Your task to perform on an android device: Search for the best 4k TVs Image 0: 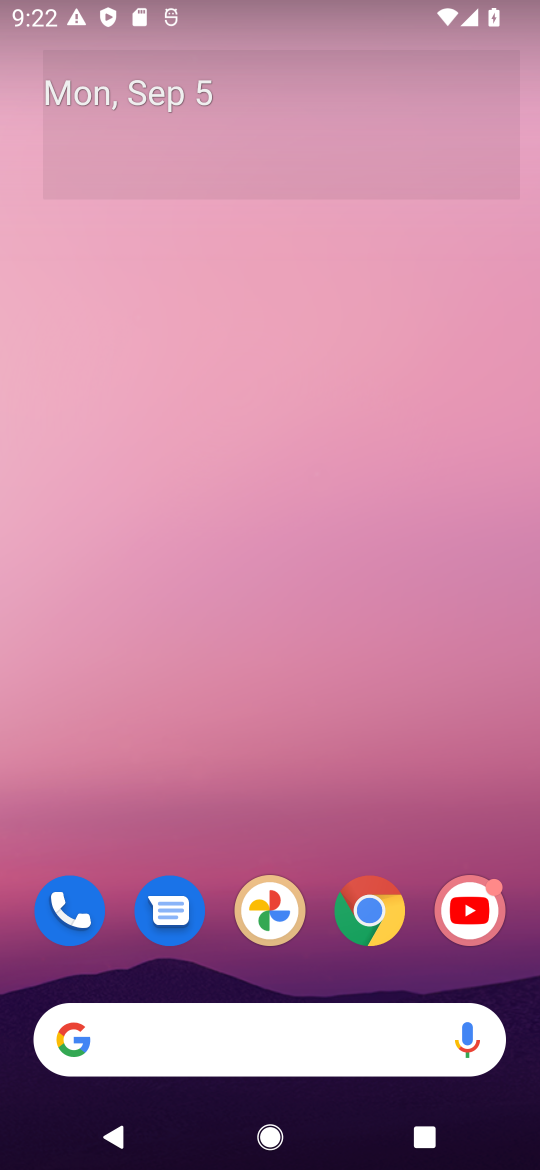
Step 0: click (359, 934)
Your task to perform on an android device: Search for the best 4k TVs Image 1: 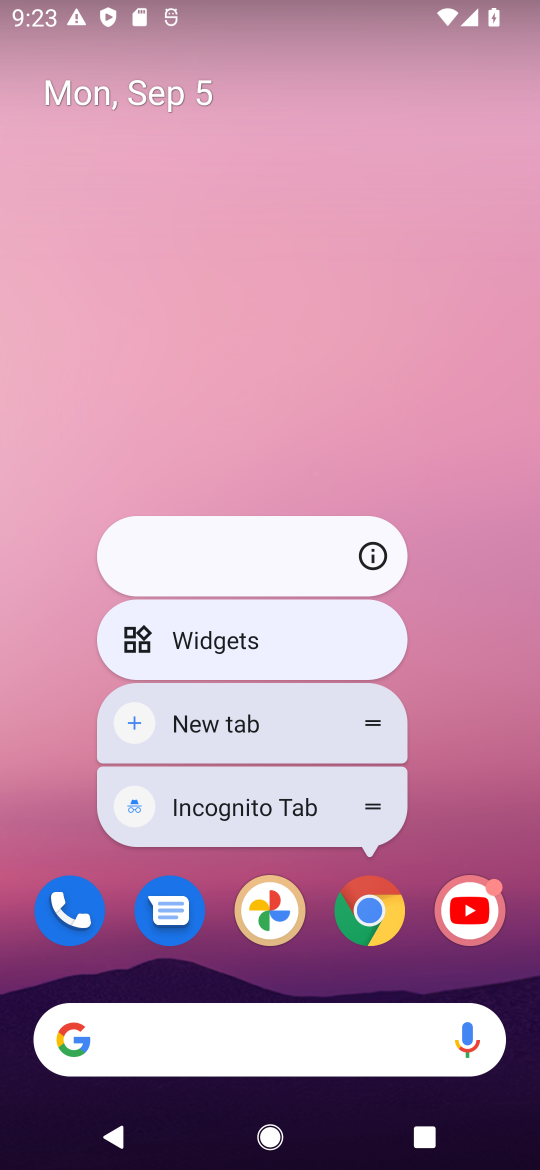
Step 1: click (375, 934)
Your task to perform on an android device: Search for the best 4k TVs Image 2: 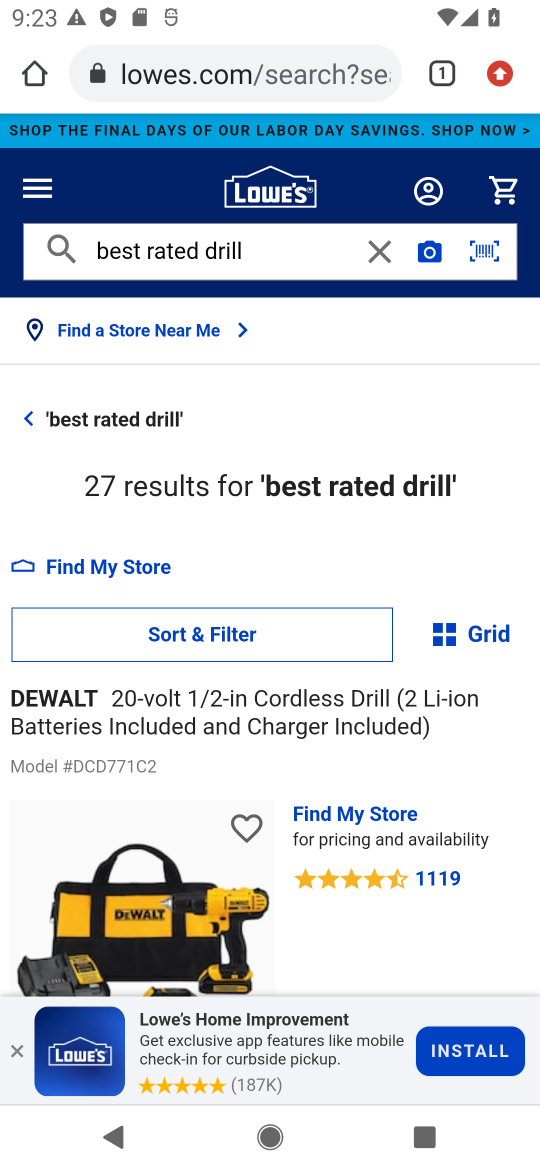
Step 2: click (292, 94)
Your task to perform on an android device: Search for the best 4k TVs Image 3: 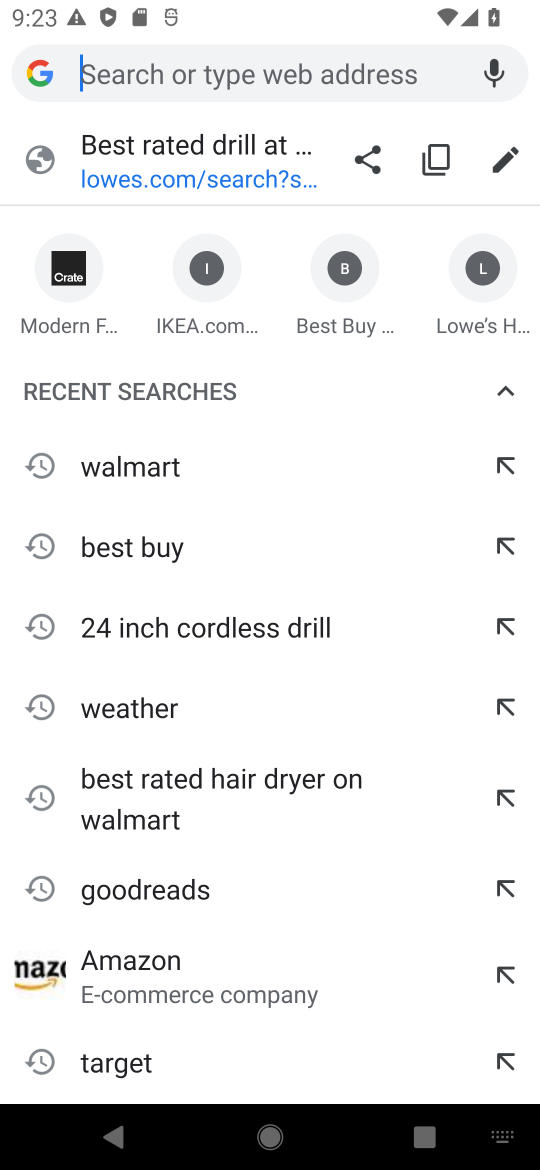
Step 3: type "4k tvs"
Your task to perform on an android device: Search for the best 4k TVs Image 4: 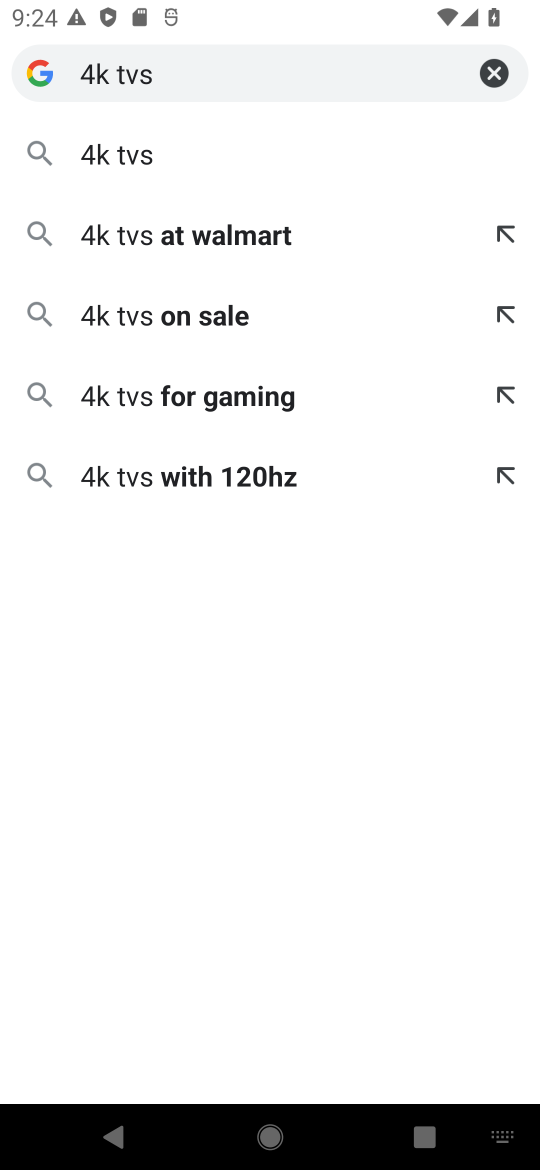
Step 4: click (310, 153)
Your task to perform on an android device: Search for the best 4k TVs Image 5: 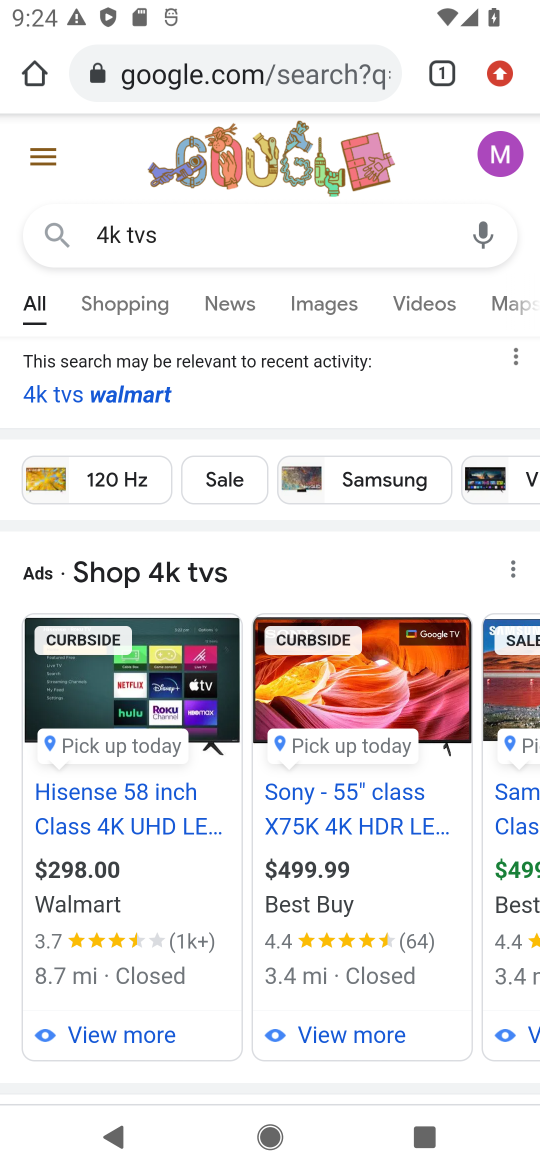
Step 5: task complete